Your task to perform on an android device: turn on priority inbox in the gmail app Image 0: 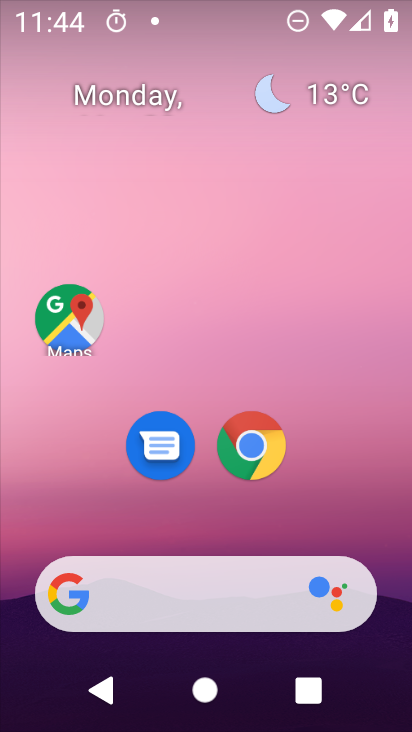
Step 0: drag from (203, 530) to (282, 47)
Your task to perform on an android device: turn on priority inbox in the gmail app Image 1: 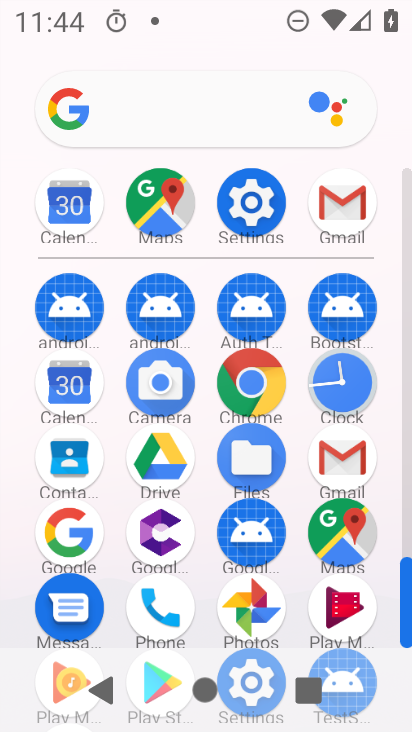
Step 1: click (338, 186)
Your task to perform on an android device: turn on priority inbox in the gmail app Image 2: 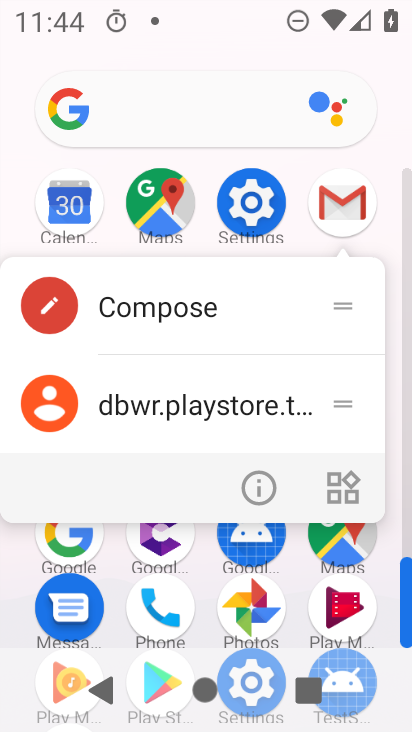
Step 2: click (358, 179)
Your task to perform on an android device: turn on priority inbox in the gmail app Image 3: 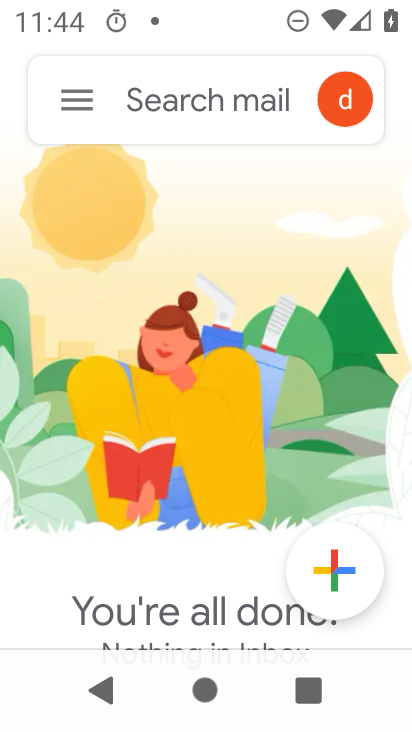
Step 3: click (85, 99)
Your task to perform on an android device: turn on priority inbox in the gmail app Image 4: 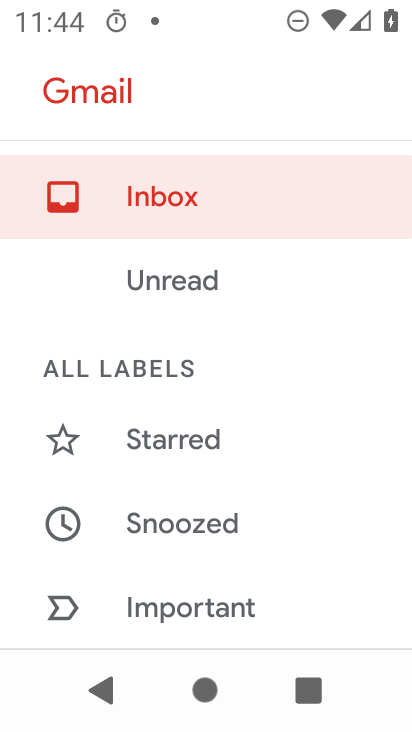
Step 4: drag from (229, 581) to (280, 46)
Your task to perform on an android device: turn on priority inbox in the gmail app Image 5: 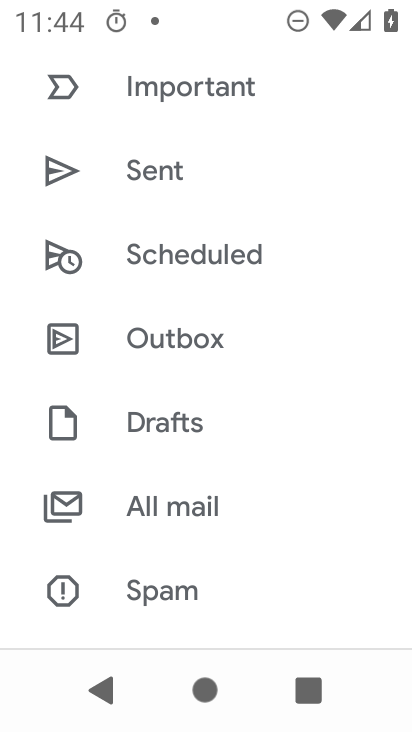
Step 5: drag from (252, 563) to (314, 71)
Your task to perform on an android device: turn on priority inbox in the gmail app Image 6: 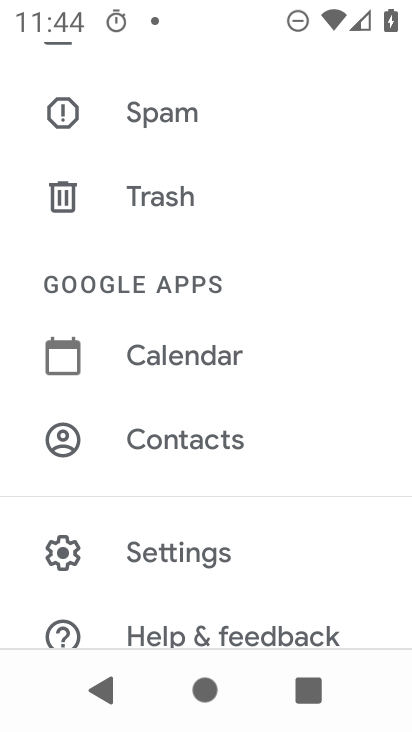
Step 6: drag from (247, 568) to (294, 34)
Your task to perform on an android device: turn on priority inbox in the gmail app Image 7: 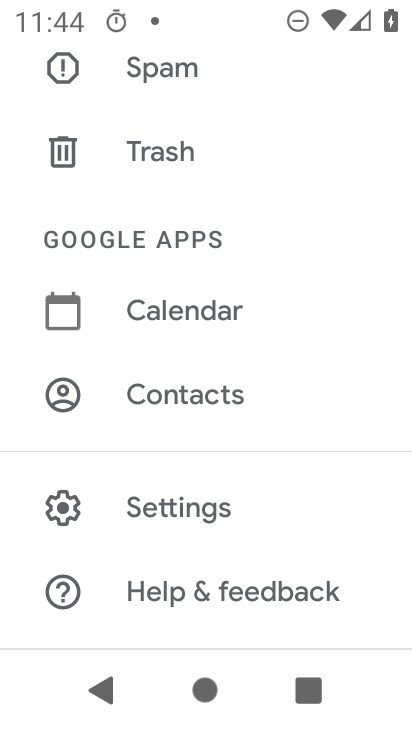
Step 7: click (203, 508)
Your task to perform on an android device: turn on priority inbox in the gmail app Image 8: 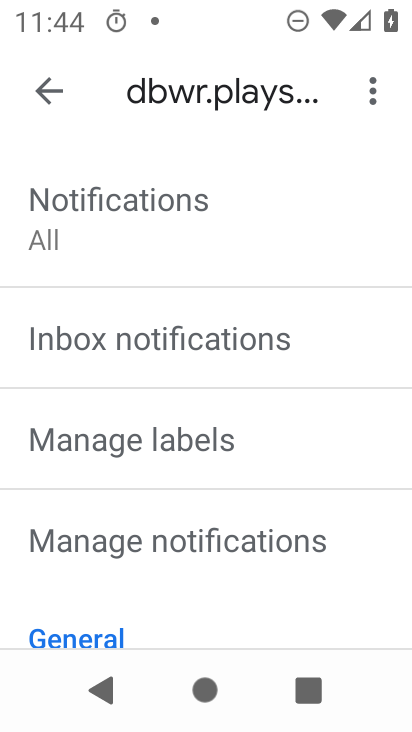
Step 8: drag from (208, 594) to (315, 0)
Your task to perform on an android device: turn on priority inbox in the gmail app Image 9: 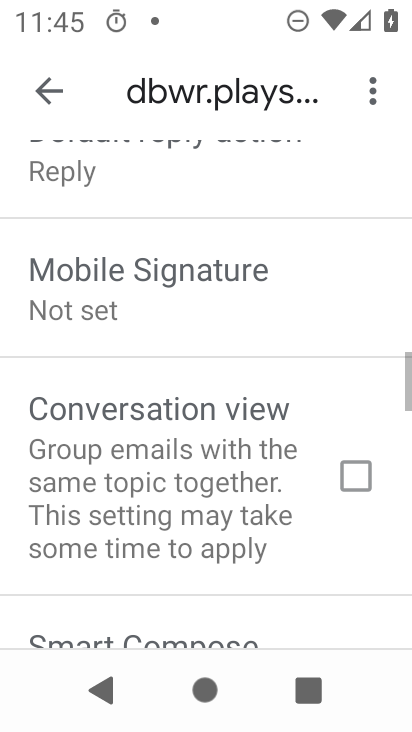
Step 9: drag from (173, 545) to (238, 1)
Your task to perform on an android device: turn on priority inbox in the gmail app Image 10: 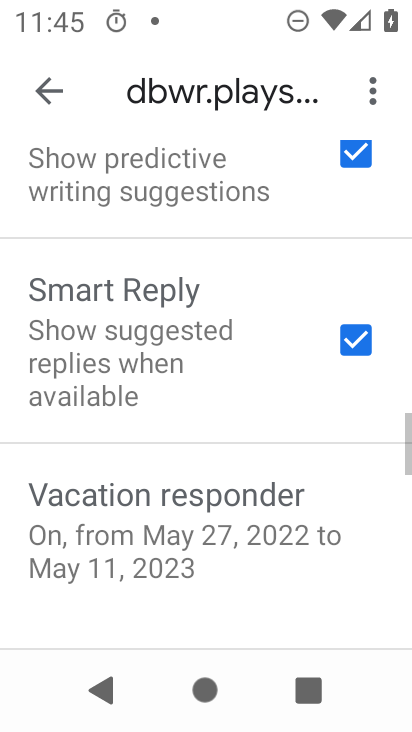
Step 10: drag from (219, 577) to (295, 2)
Your task to perform on an android device: turn on priority inbox in the gmail app Image 11: 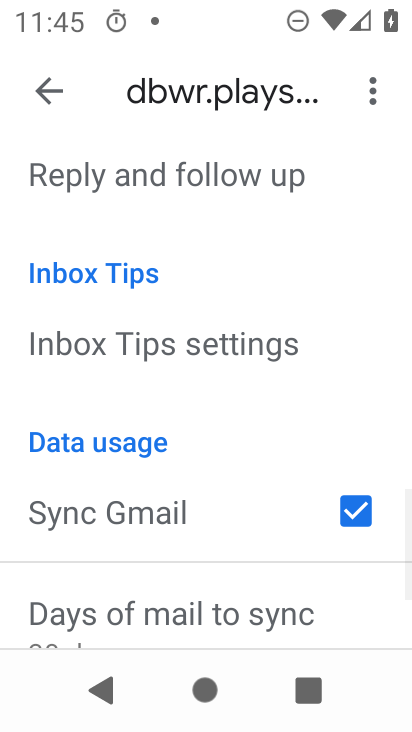
Step 11: drag from (194, 572) to (338, 3)
Your task to perform on an android device: turn on priority inbox in the gmail app Image 12: 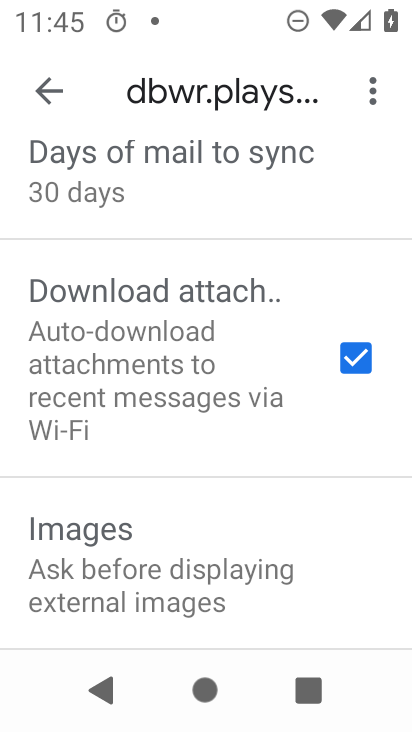
Step 12: drag from (216, 540) to (342, 0)
Your task to perform on an android device: turn on priority inbox in the gmail app Image 13: 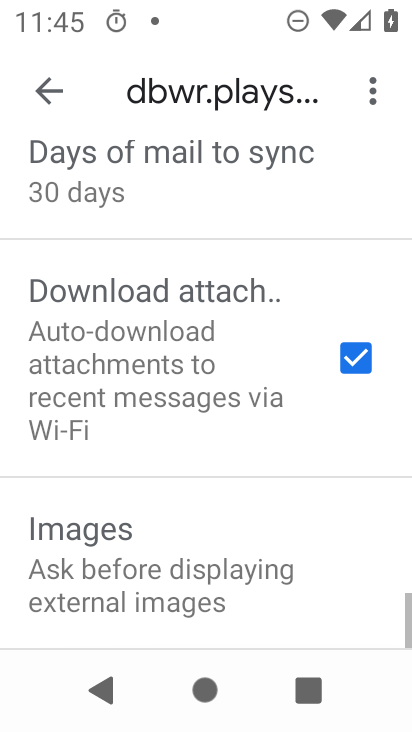
Step 13: drag from (261, 207) to (209, 621)
Your task to perform on an android device: turn on priority inbox in the gmail app Image 14: 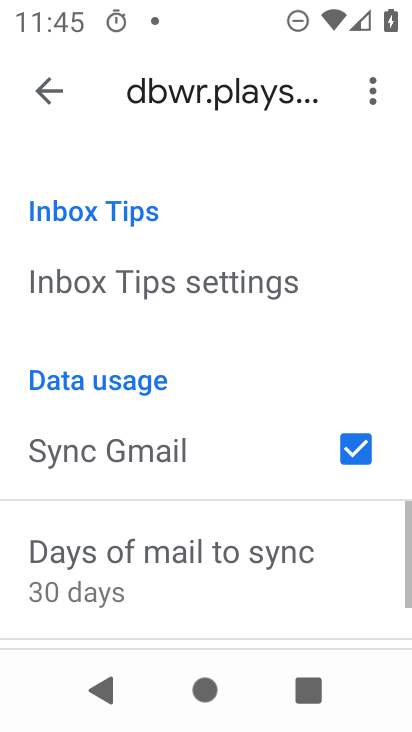
Step 14: drag from (172, 306) to (183, 701)
Your task to perform on an android device: turn on priority inbox in the gmail app Image 15: 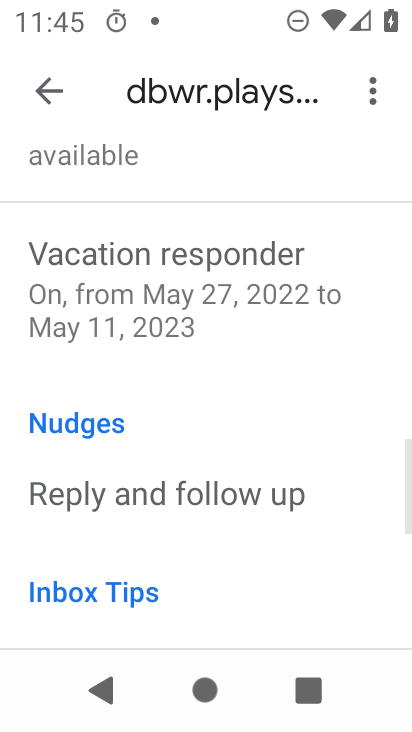
Step 15: drag from (187, 394) to (196, 457)
Your task to perform on an android device: turn on priority inbox in the gmail app Image 16: 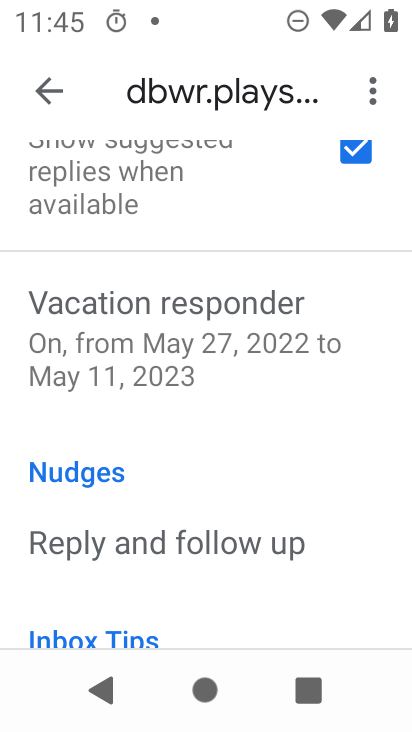
Step 16: drag from (210, 201) to (168, 569)
Your task to perform on an android device: turn on priority inbox in the gmail app Image 17: 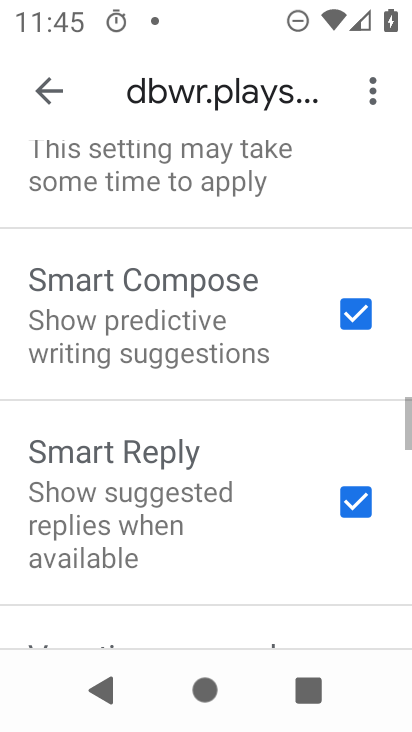
Step 17: drag from (139, 142) to (96, 691)
Your task to perform on an android device: turn on priority inbox in the gmail app Image 18: 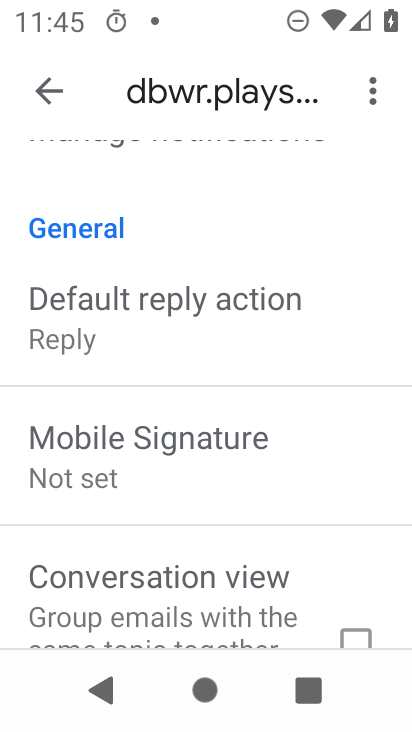
Step 18: drag from (147, 265) to (136, 712)
Your task to perform on an android device: turn on priority inbox in the gmail app Image 19: 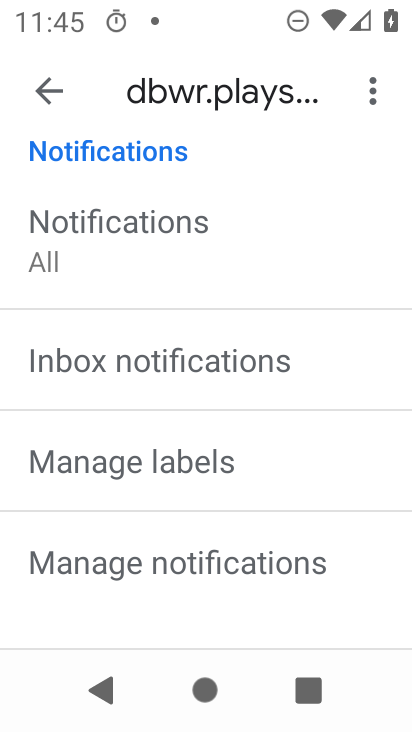
Step 19: drag from (172, 278) to (172, 509)
Your task to perform on an android device: turn on priority inbox in the gmail app Image 20: 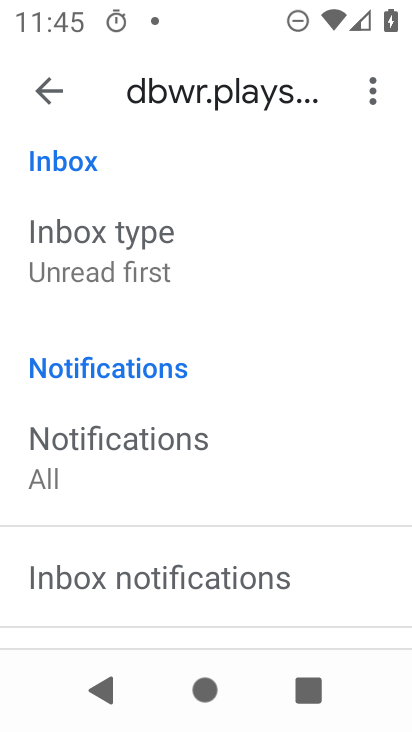
Step 20: click (104, 238)
Your task to perform on an android device: turn on priority inbox in the gmail app Image 21: 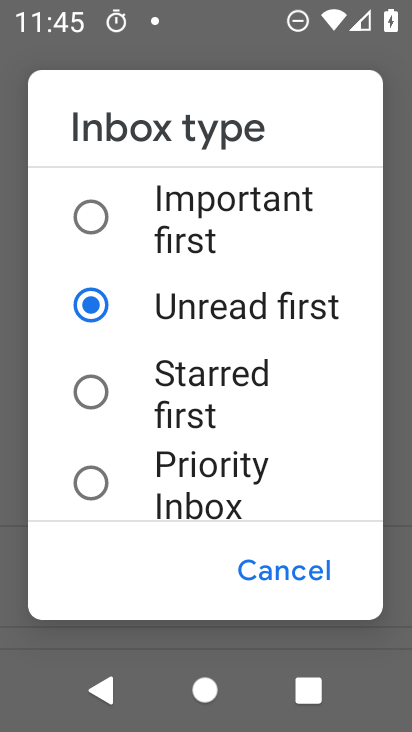
Step 21: drag from (169, 454) to (196, 204)
Your task to perform on an android device: turn on priority inbox in the gmail app Image 22: 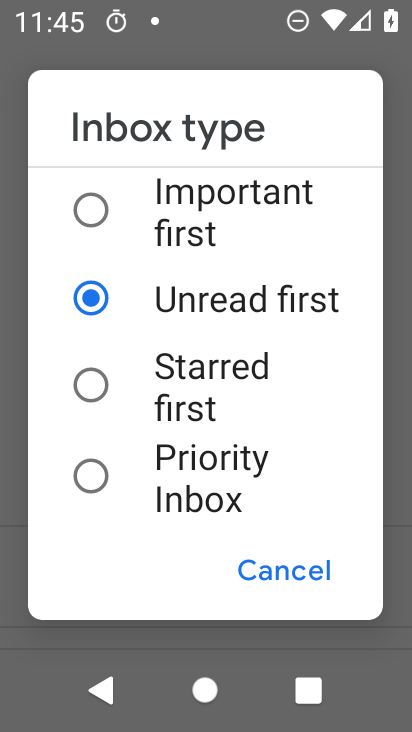
Step 22: click (113, 475)
Your task to perform on an android device: turn on priority inbox in the gmail app Image 23: 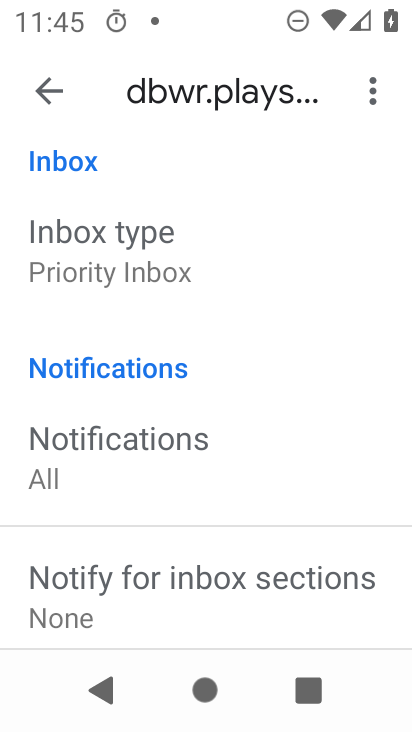
Step 23: task complete